Your task to perform on an android device: read, delete, or share a saved page in the chrome app Image 0: 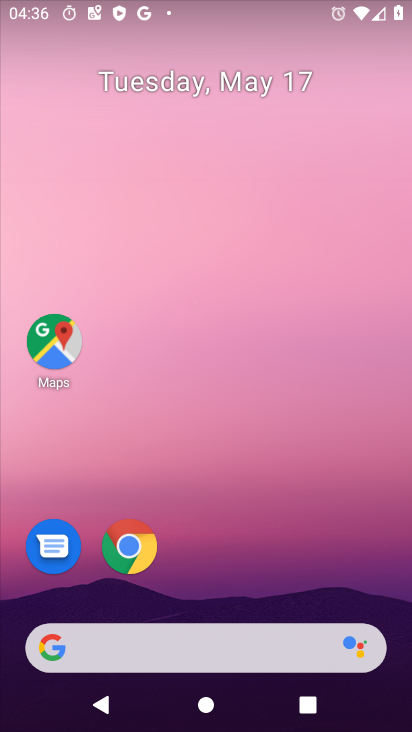
Step 0: click (144, 546)
Your task to perform on an android device: read, delete, or share a saved page in the chrome app Image 1: 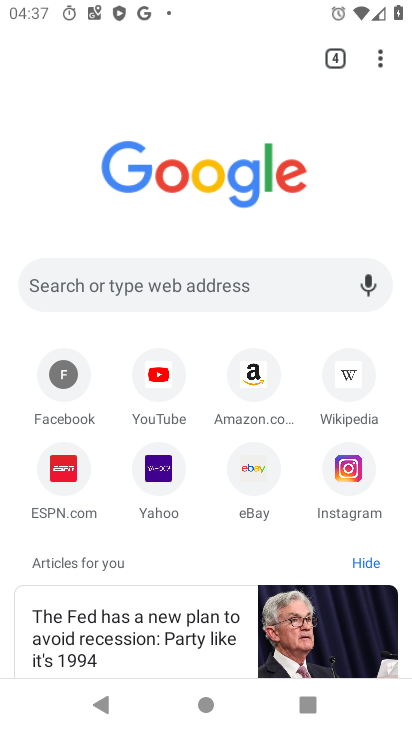
Step 1: click (380, 52)
Your task to perform on an android device: read, delete, or share a saved page in the chrome app Image 2: 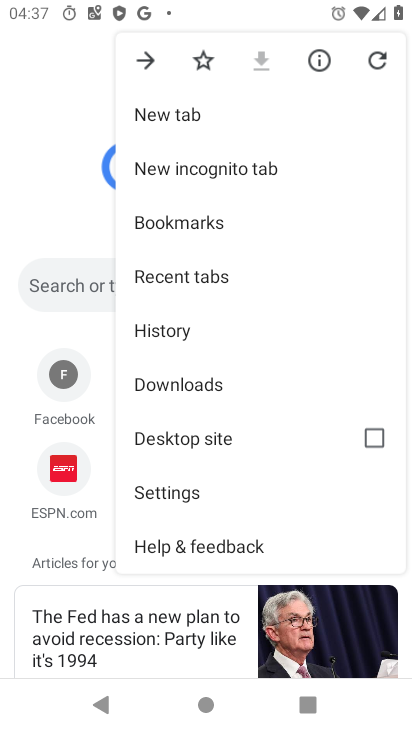
Step 2: click (163, 390)
Your task to perform on an android device: read, delete, or share a saved page in the chrome app Image 3: 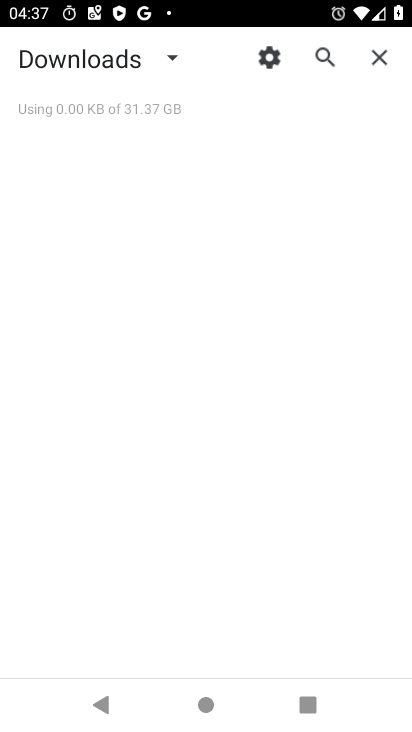
Step 3: task complete